Your task to perform on an android device: open chrome and create a bookmark for the current page Image 0: 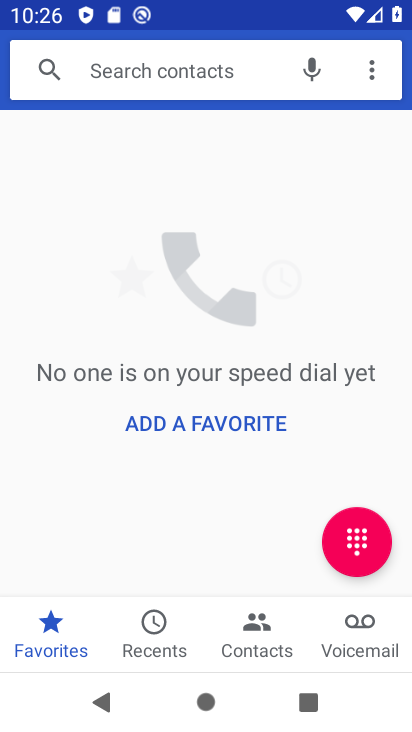
Step 0: press back button
Your task to perform on an android device: open chrome and create a bookmark for the current page Image 1: 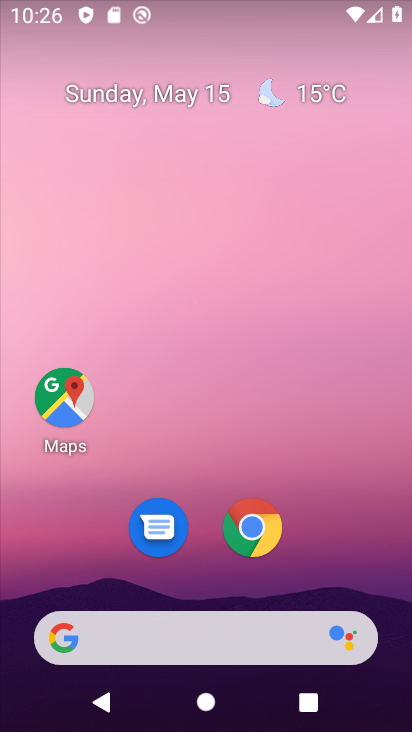
Step 1: click (253, 529)
Your task to perform on an android device: open chrome and create a bookmark for the current page Image 2: 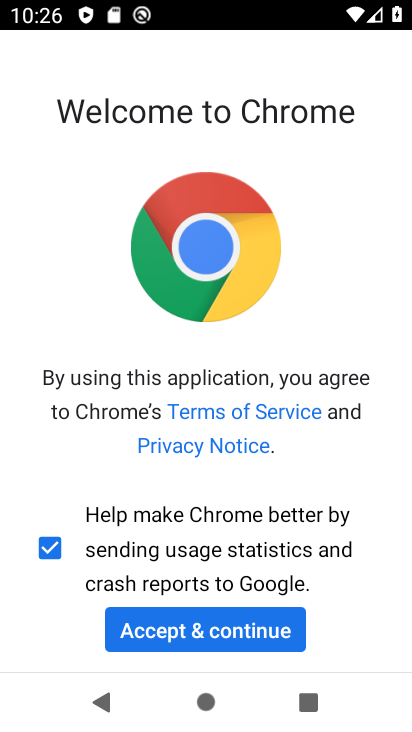
Step 2: click (193, 633)
Your task to perform on an android device: open chrome and create a bookmark for the current page Image 3: 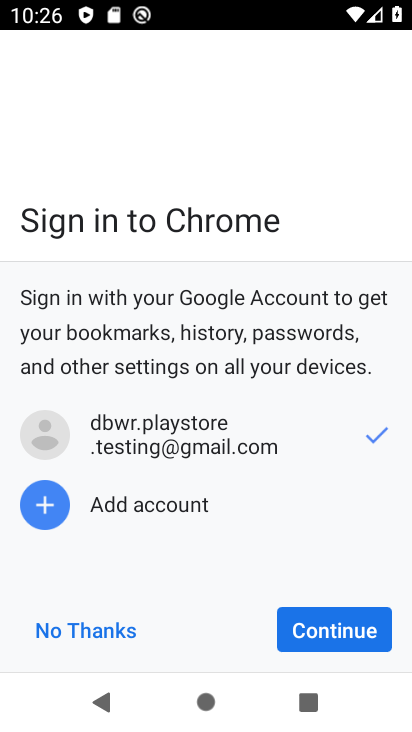
Step 3: click (320, 617)
Your task to perform on an android device: open chrome and create a bookmark for the current page Image 4: 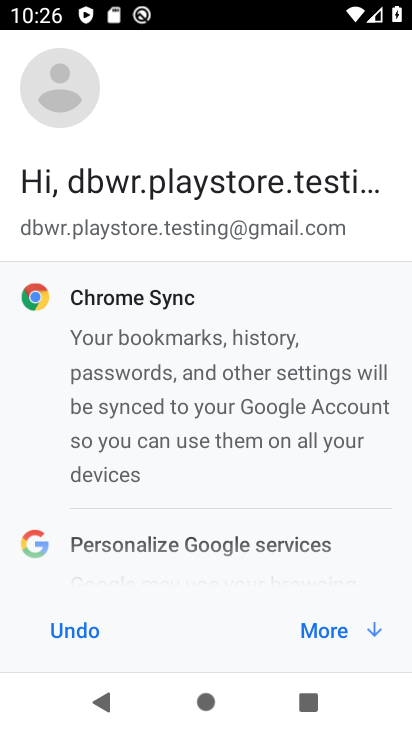
Step 4: click (320, 629)
Your task to perform on an android device: open chrome and create a bookmark for the current page Image 5: 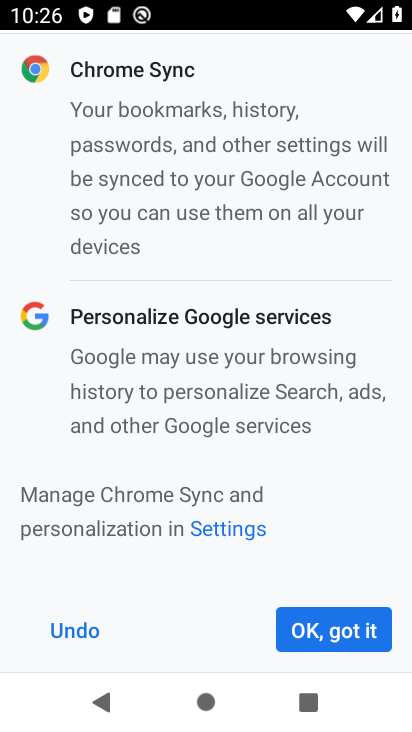
Step 5: click (320, 629)
Your task to perform on an android device: open chrome and create a bookmark for the current page Image 6: 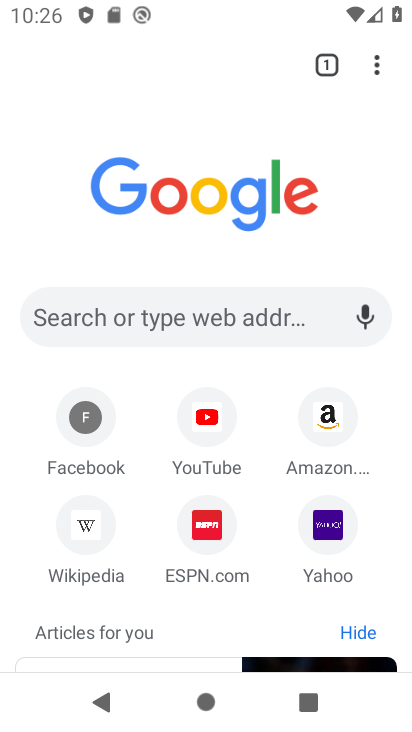
Step 6: click (375, 63)
Your task to perform on an android device: open chrome and create a bookmark for the current page Image 7: 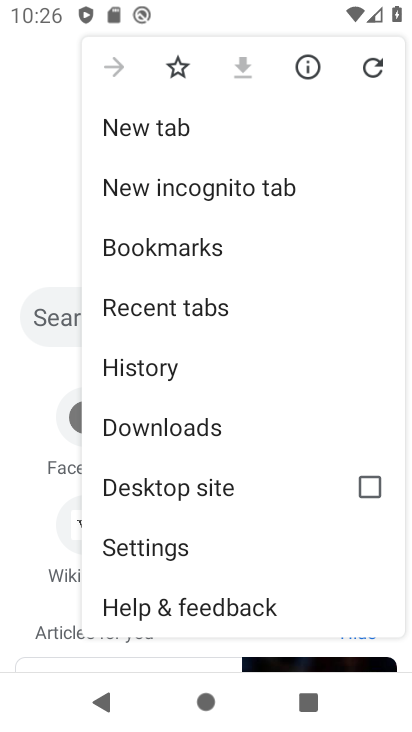
Step 7: click (178, 63)
Your task to perform on an android device: open chrome and create a bookmark for the current page Image 8: 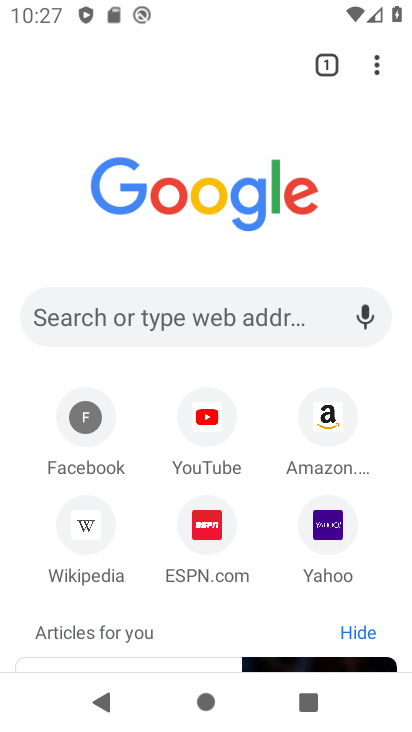
Step 8: task complete